Your task to perform on an android device: Open Chrome and go to settings Image 0: 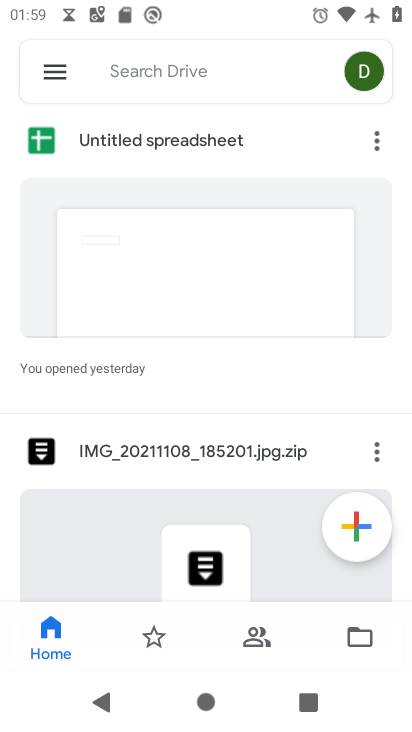
Step 0: press home button
Your task to perform on an android device: Open Chrome and go to settings Image 1: 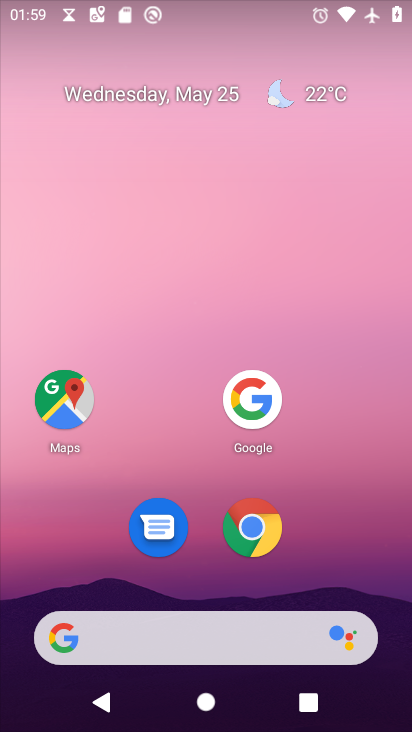
Step 1: click (252, 542)
Your task to perform on an android device: Open Chrome and go to settings Image 2: 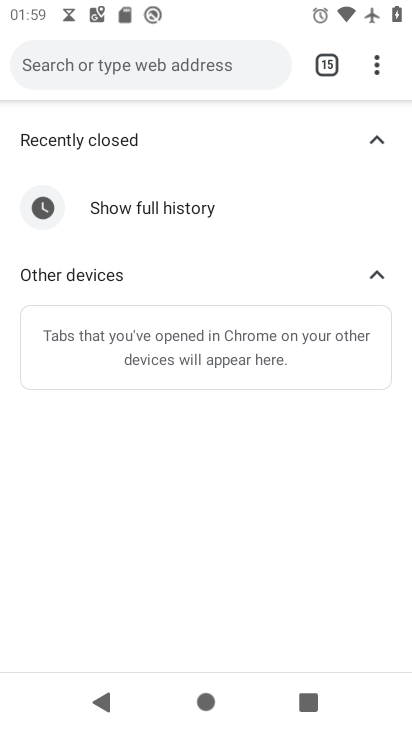
Step 2: task complete